Your task to perform on an android device: turn on priority inbox in the gmail app Image 0: 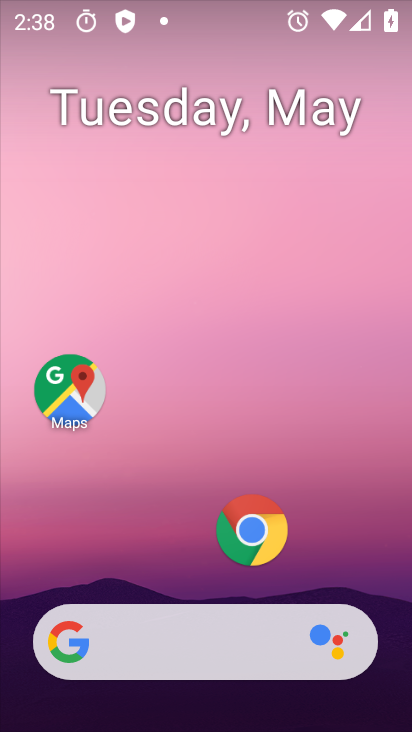
Step 0: drag from (207, 569) to (148, 66)
Your task to perform on an android device: turn on priority inbox in the gmail app Image 1: 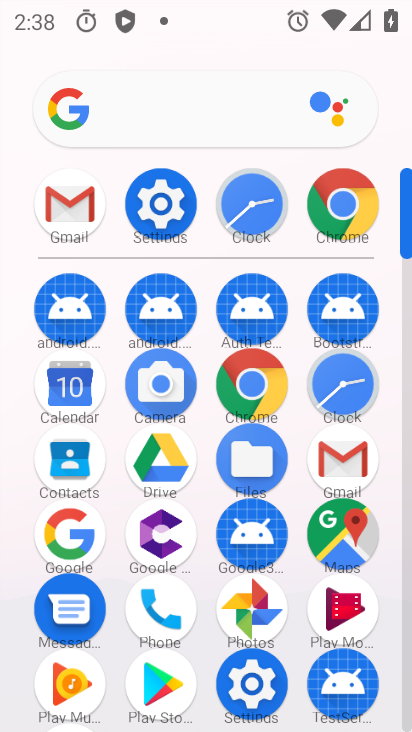
Step 1: click (344, 457)
Your task to perform on an android device: turn on priority inbox in the gmail app Image 2: 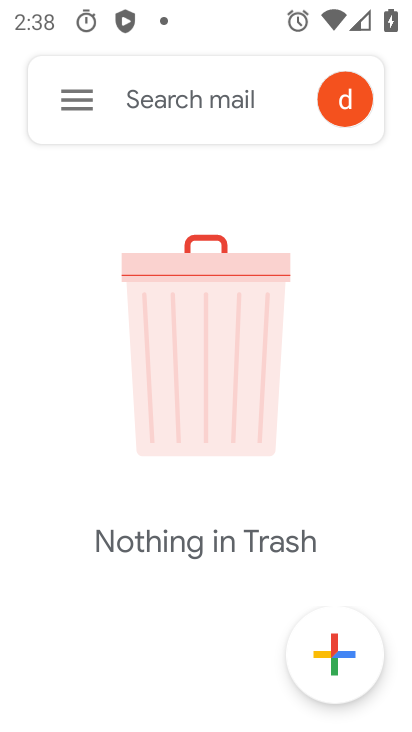
Step 2: click (76, 90)
Your task to perform on an android device: turn on priority inbox in the gmail app Image 3: 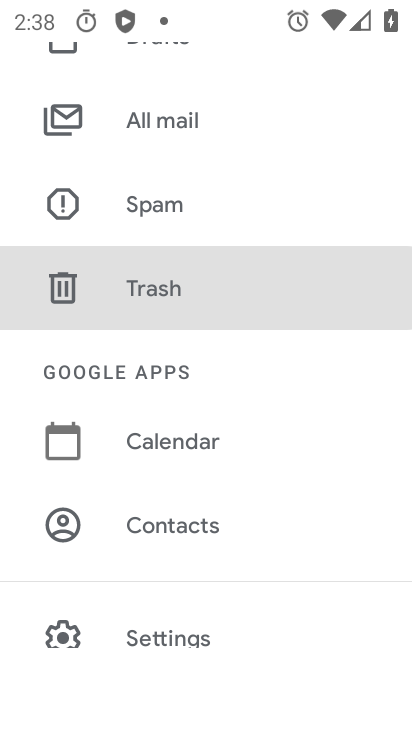
Step 3: click (180, 617)
Your task to perform on an android device: turn on priority inbox in the gmail app Image 4: 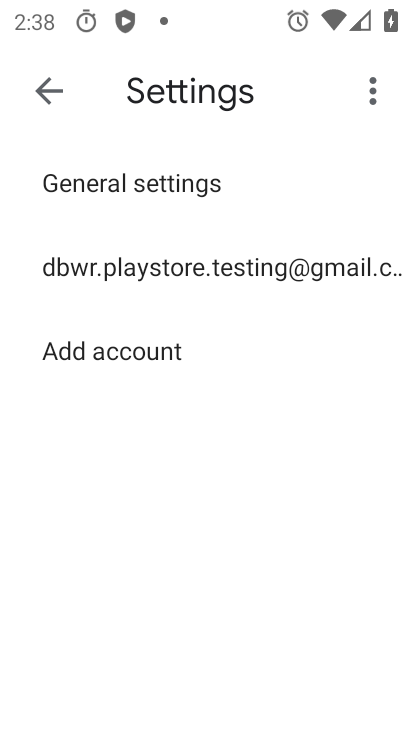
Step 4: click (136, 194)
Your task to perform on an android device: turn on priority inbox in the gmail app Image 5: 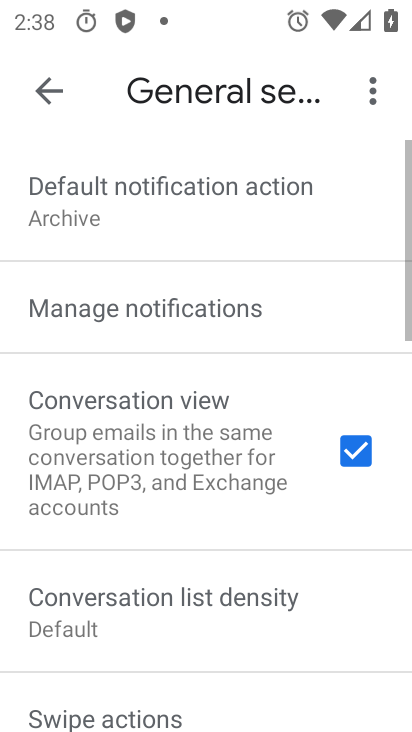
Step 5: click (52, 88)
Your task to perform on an android device: turn on priority inbox in the gmail app Image 6: 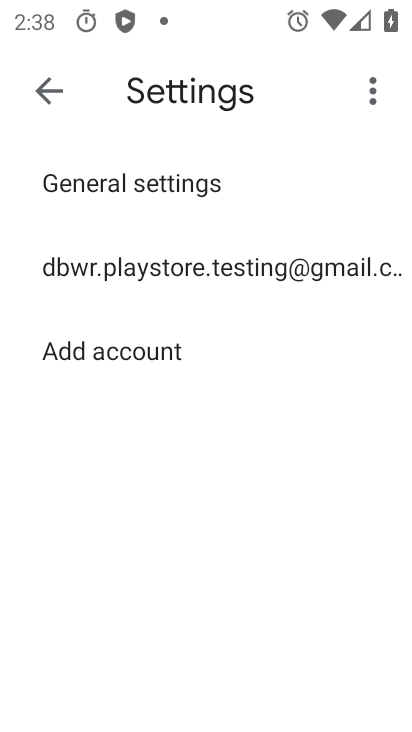
Step 6: click (132, 256)
Your task to perform on an android device: turn on priority inbox in the gmail app Image 7: 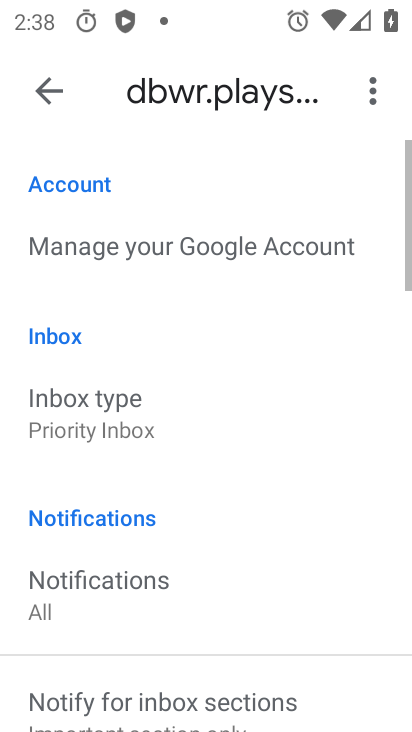
Step 7: click (136, 389)
Your task to perform on an android device: turn on priority inbox in the gmail app Image 8: 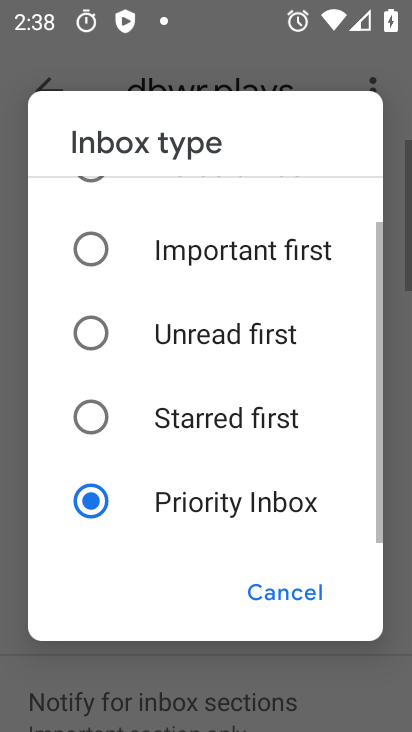
Step 8: click (161, 505)
Your task to perform on an android device: turn on priority inbox in the gmail app Image 9: 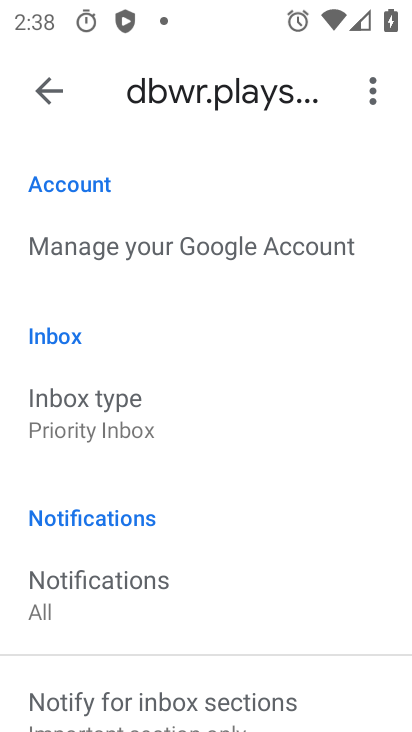
Step 9: task complete